Your task to perform on an android device: Search for a new blush on Sephora Image 0: 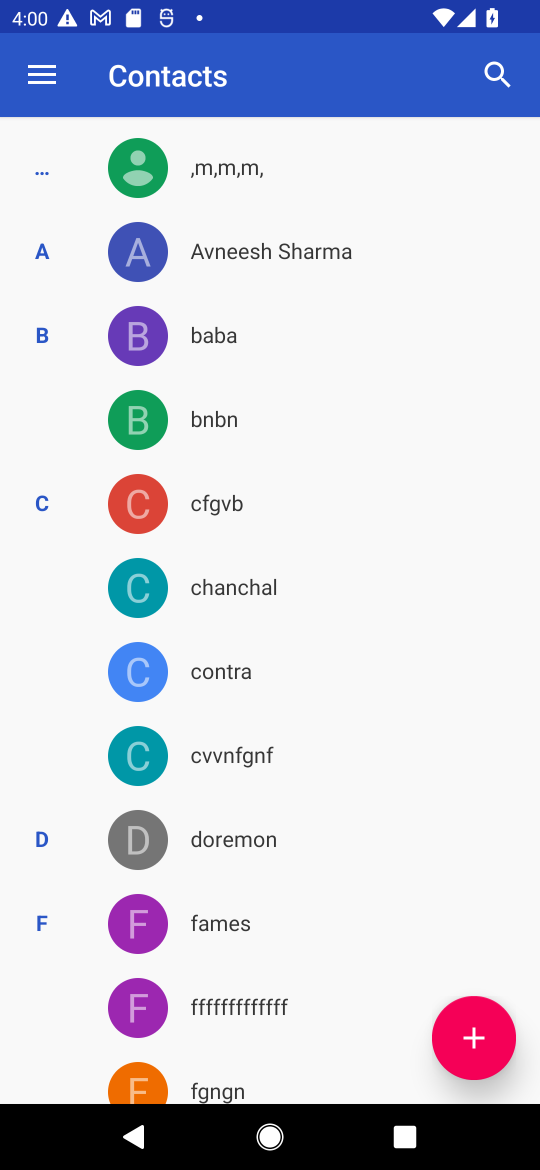
Step 0: press home button
Your task to perform on an android device: Search for a new blush on Sephora Image 1: 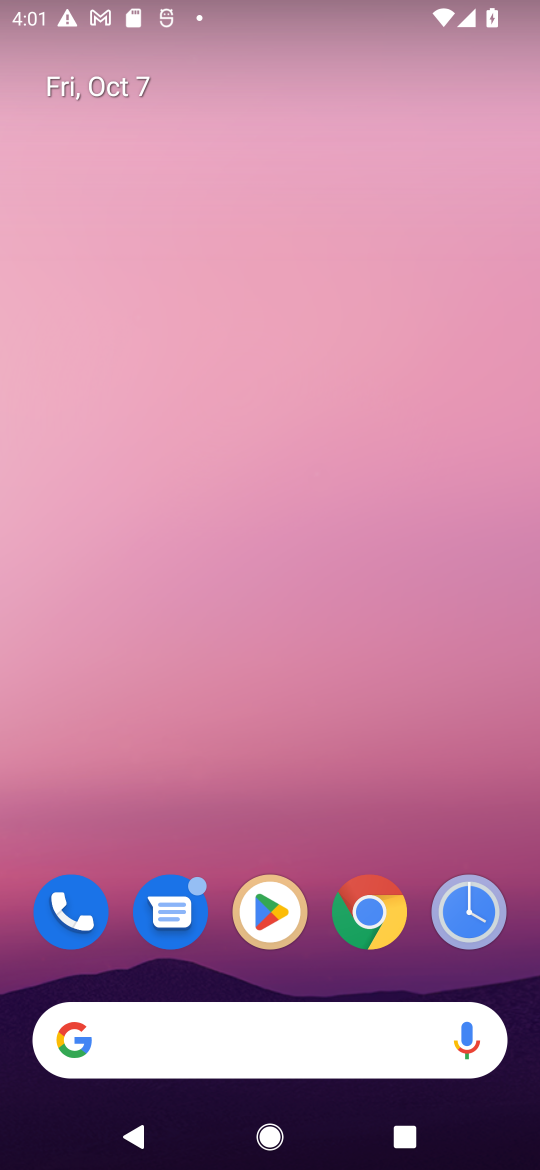
Step 1: drag from (324, 805) to (296, 277)
Your task to perform on an android device: Search for a new blush on Sephora Image 2: 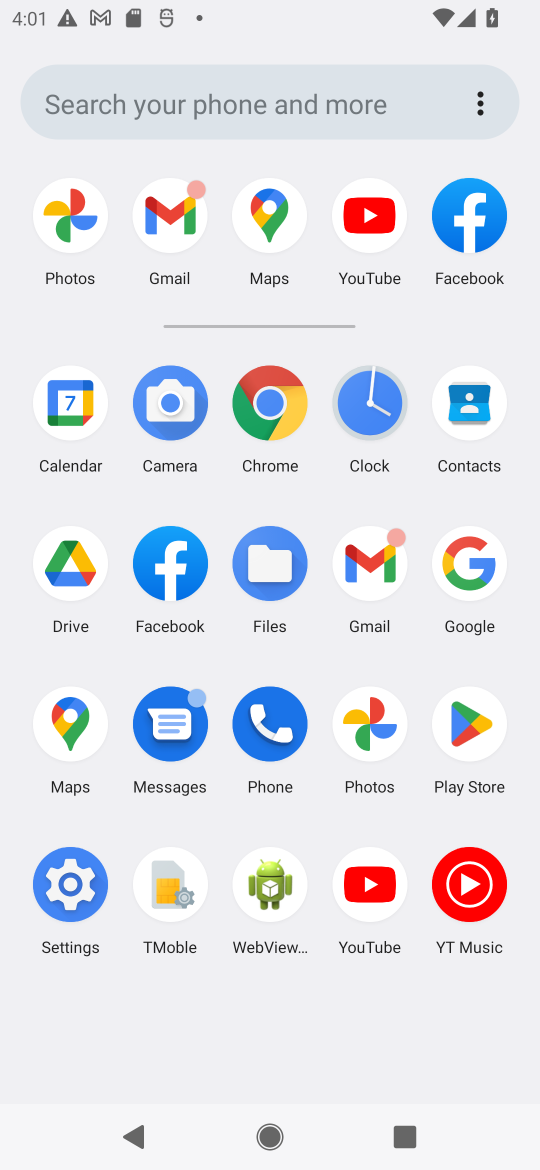
Step 2: click (518, 564)
Your task to perform on an android device: Search for a new blush on Sephora Image 3: 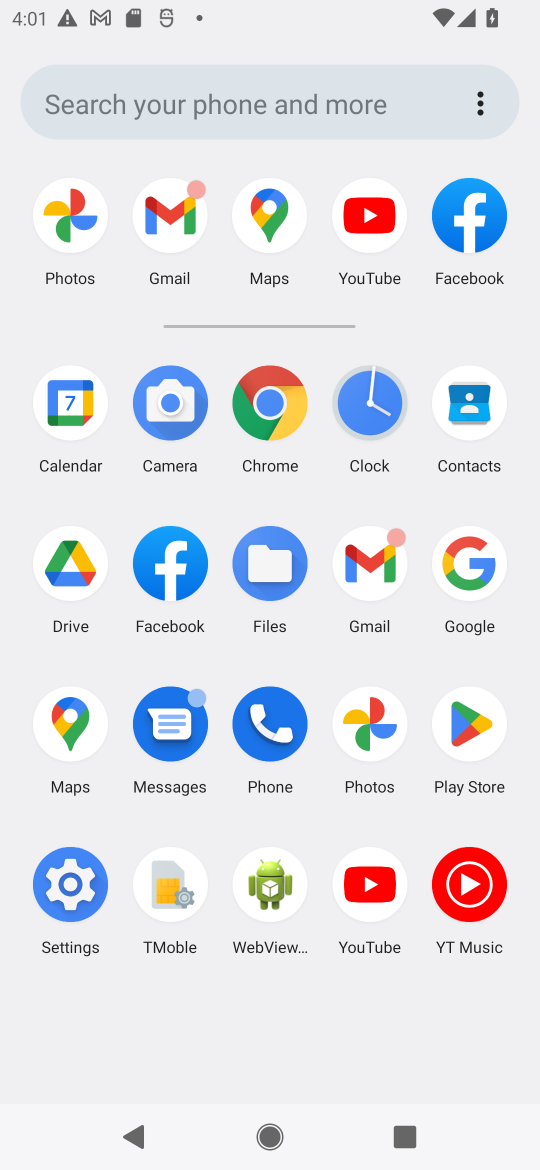
Step 3: click (501, 549)
Your task to perform on an android device: Search for a new blush on Sephora Image 4: 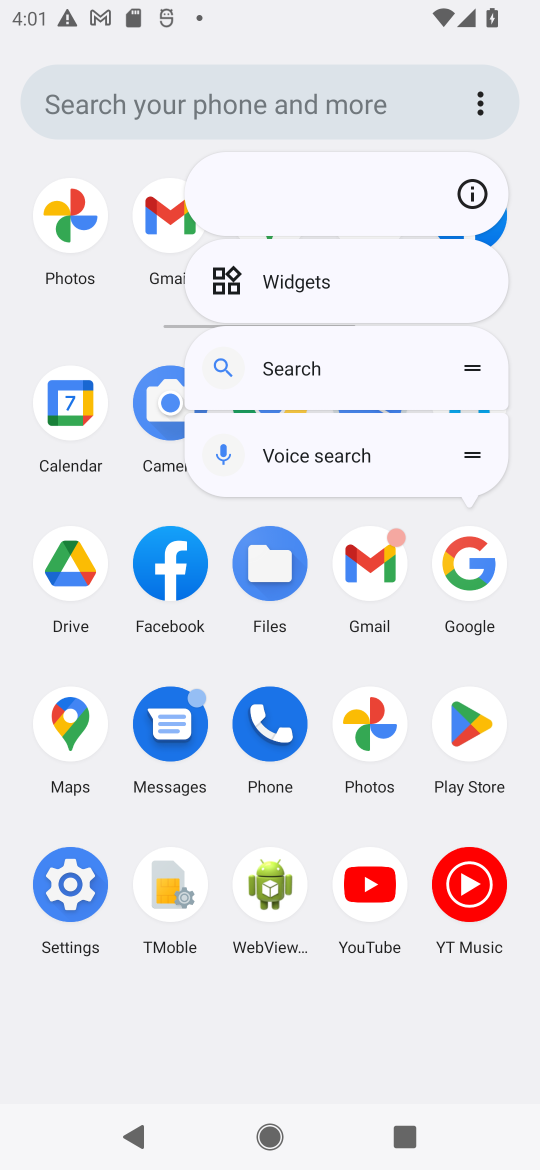
Step 4: click (489, 552)
Your task to perform on an android device: Search for a new blush on Sephora Image 5: 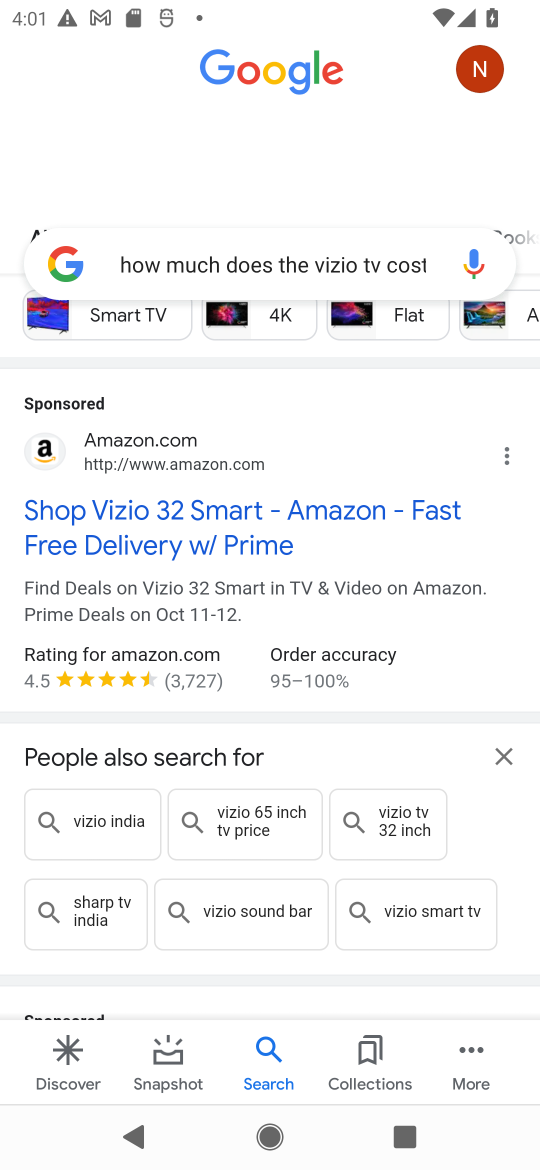
Step 5: click (345, 243)
Your task to perform on an android device: Search for a new blush on Sephora Image 6: 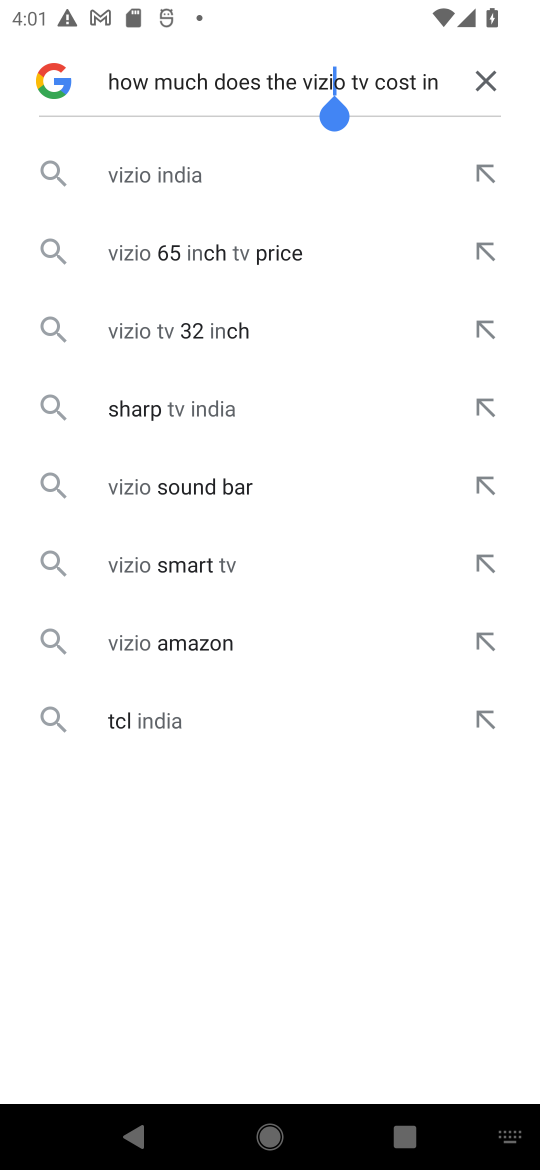
Step 6: click (490, 71)
Your task to perform on an android device: Search for a new blush on Sephora Image 7: 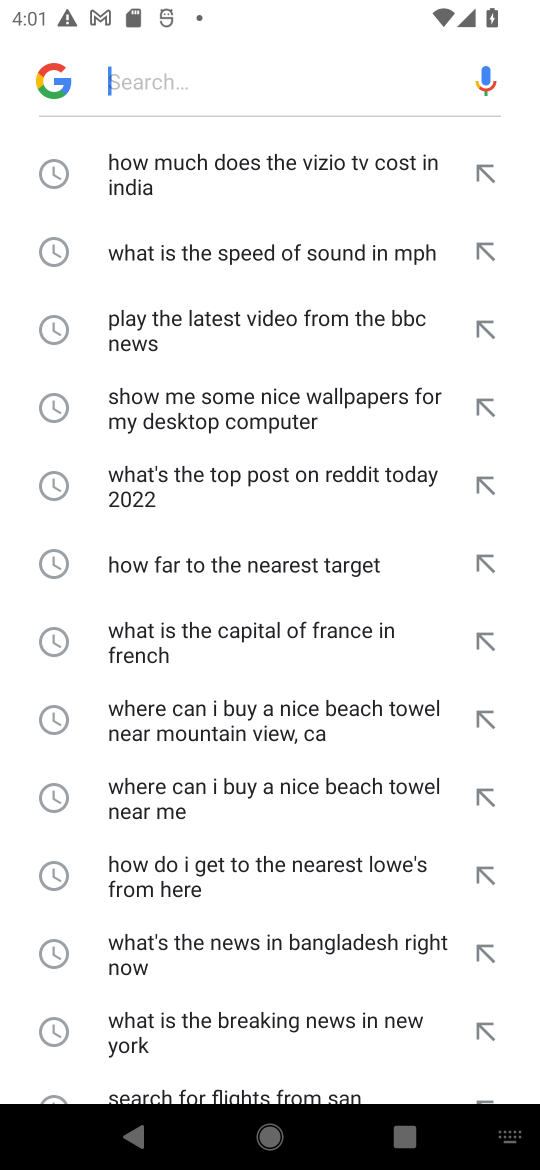
Step 7: click (196, 90)
Your task to perform on an android device: Search for a new blush on Sephora Image 8: 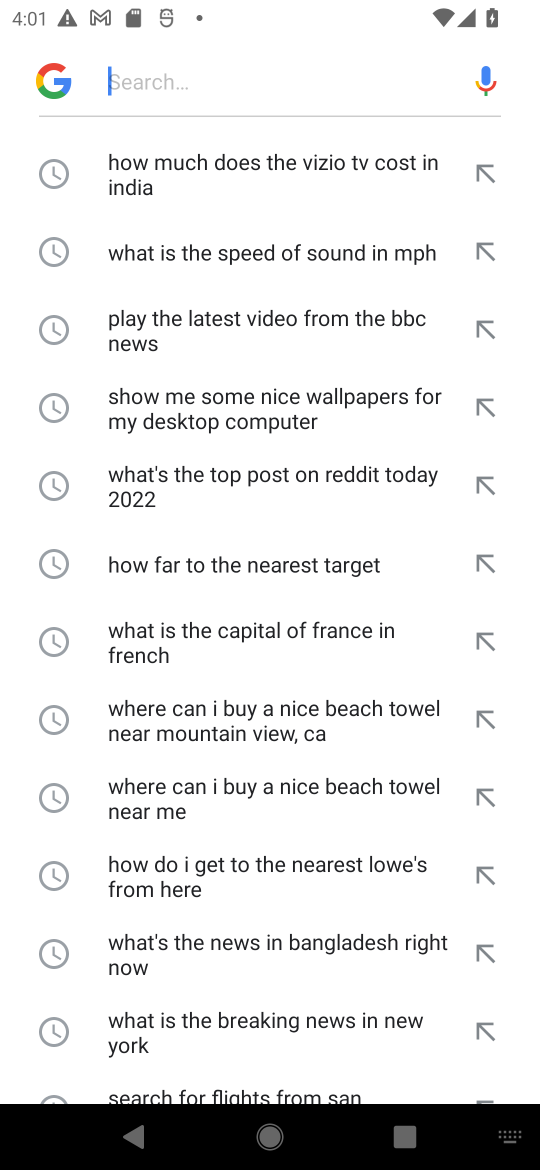
Step 8: type " a new blush on Sephora "
Your task to perform on an android device: Search for a new blush on Sephora Image 9: 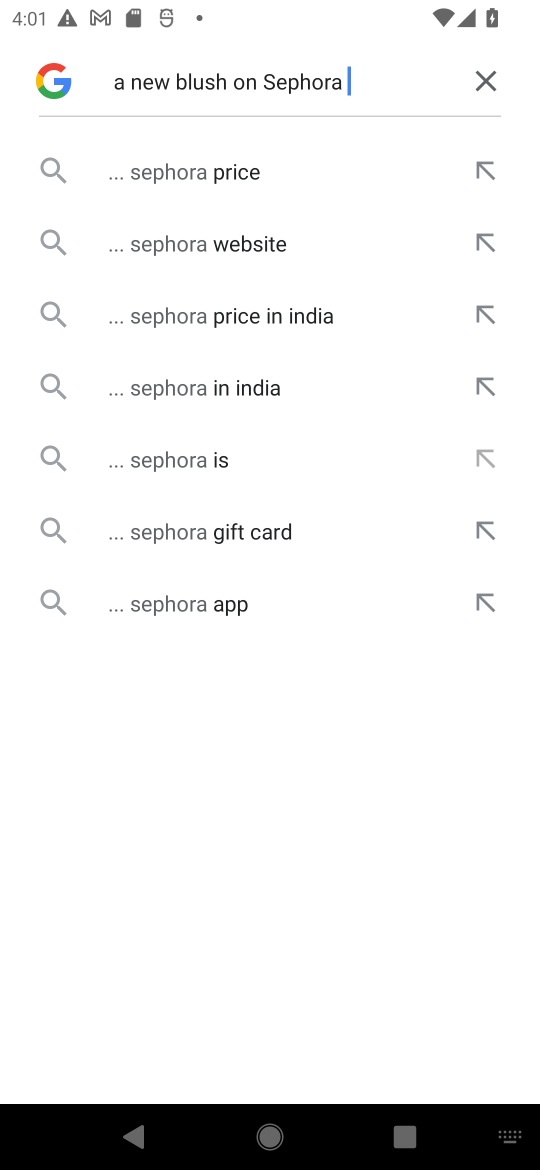
Step 9: click (212, 174)
Your task to perform on an android device: Search for a new blush on Sephora Image 10: 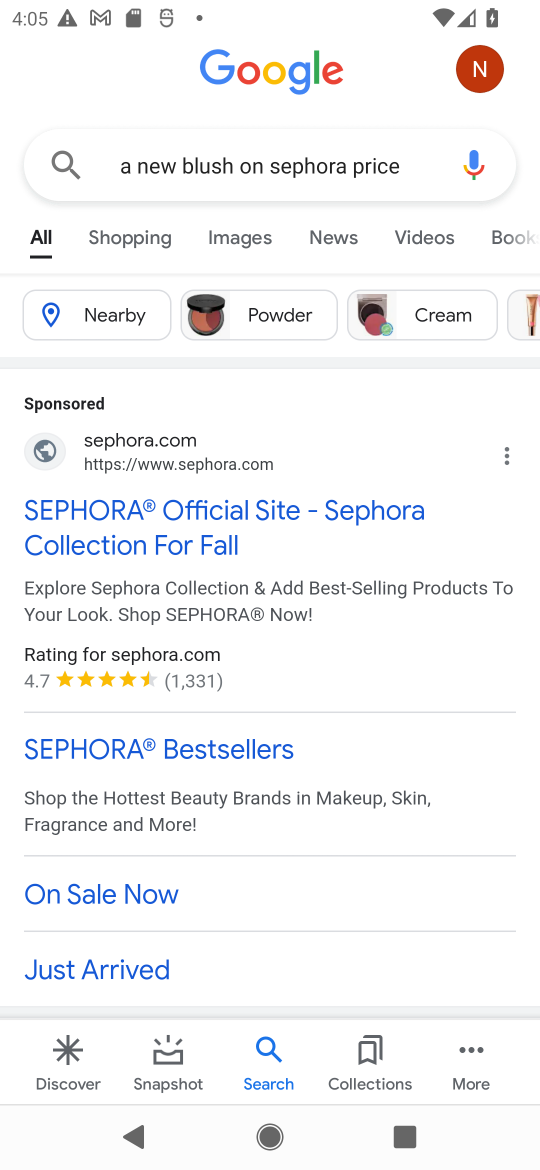
Step 10: task complete